Your task to perform on an android device: Search for pizza restaurants on Maps Image 0: 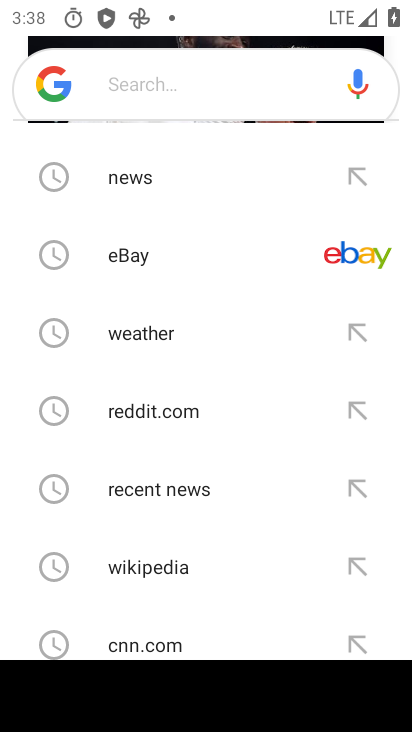
Step 0: press home button
Your task to perform on an android device: Search for pizza restaurants on Maps Image 1: 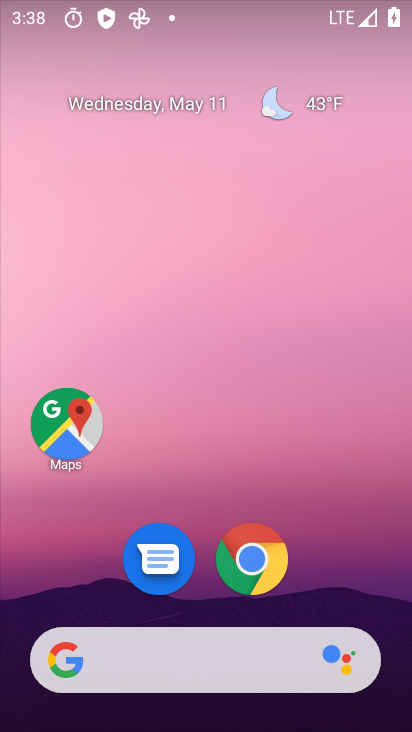
Step 1: click (68, 417)
Your task to perform on an android device: Search for pizza restaurants on Maps Image 2: 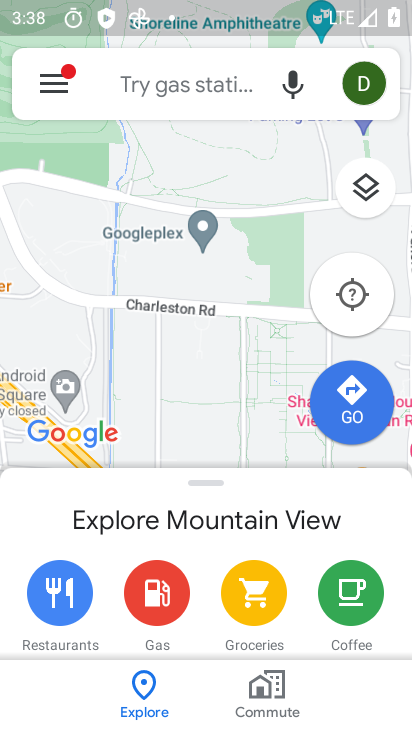
Step 2: click (188, 92)
Your task to perform on an android device: Search for pizza restaurants on Maps Image 3: 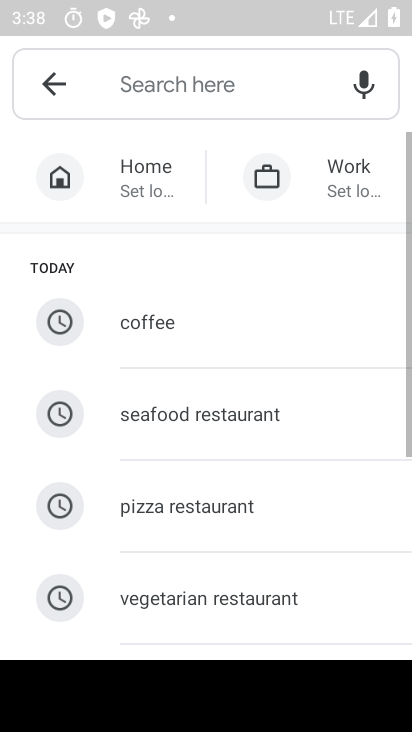
Step 3: click (241, 501)
Your task to perform on an android device: Search for pizza restaurants on Maps Image 4: 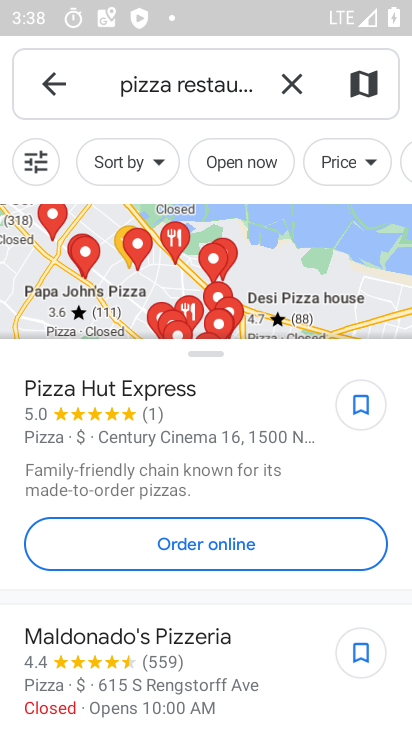
Step 4: task complete